Your task to perform on an android device: stop showing notifications on the lock screen Image 0: 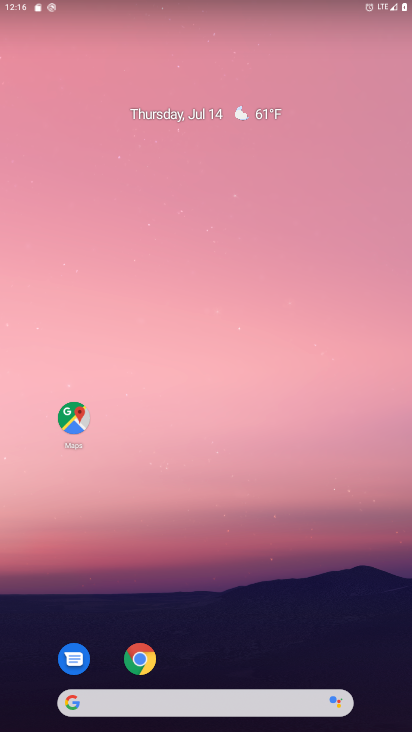
Step 0: drag from (219, 678) to (231, 91)
Your task to perform on an android device: stop showing notifications on the lock screen Image 1: 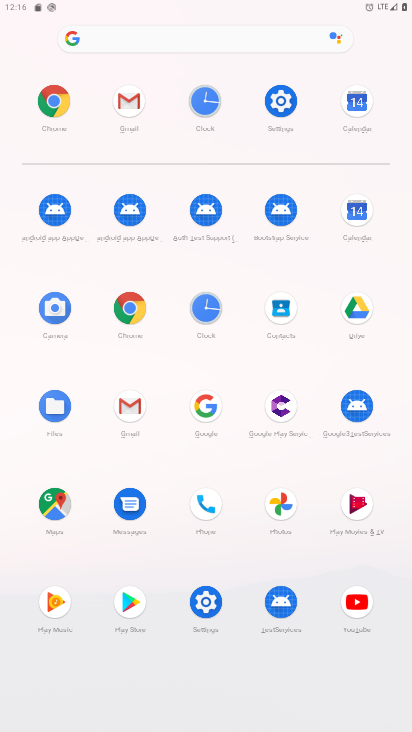
Step 1: click (279, 92)
Your task to perform on an android device: stop showing notifications on the lock screen Image 2: 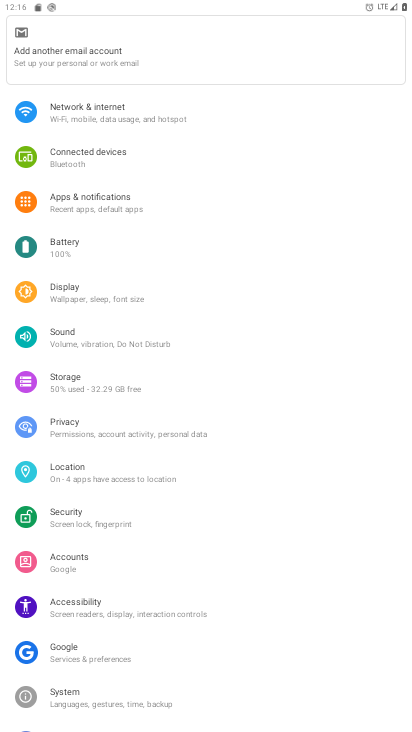
Step 2: click (158, 200)
Your task to perform on an android device: stop showing notifications on the lock screen Image 3: 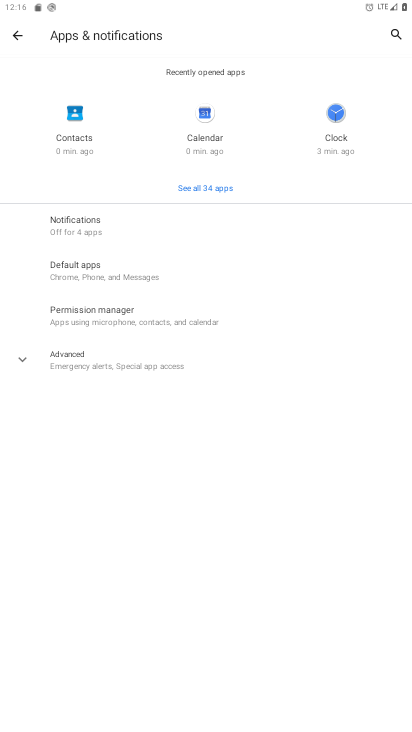
Step 3: click (105, 224)
Your task to perform on an android device: stop showing notifications on the lock screen Image 4: 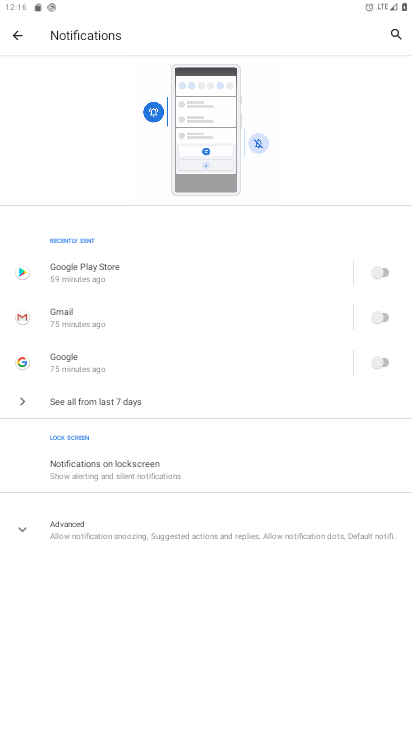
Step 4: click (63, 470)
Your task to perform on an android device: stop showing notifications on the lock screen Image 5: 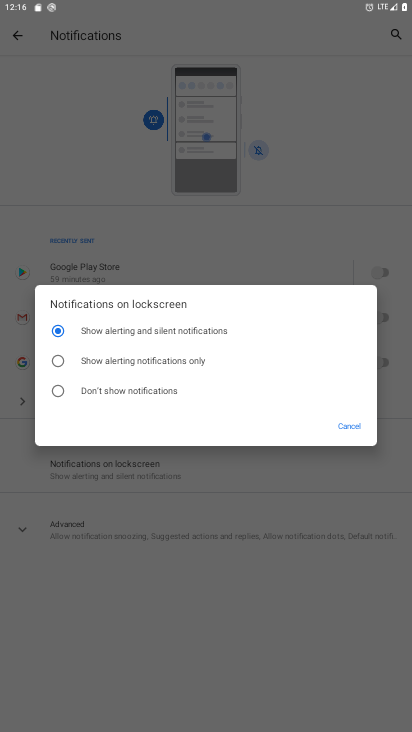
Step 5: click (58, 387)
Your task to perform on an android device: stop showing notifications on the lock screen Image 6: 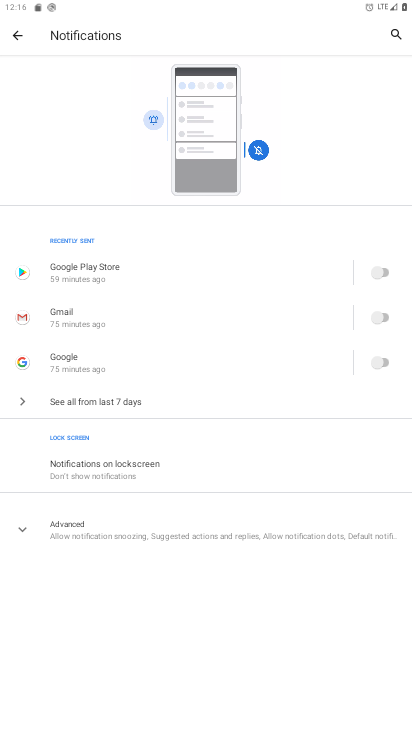
Step 6: task complete